Your task to perform on an android device: toggle priority inbox in the gmail app Image 0: 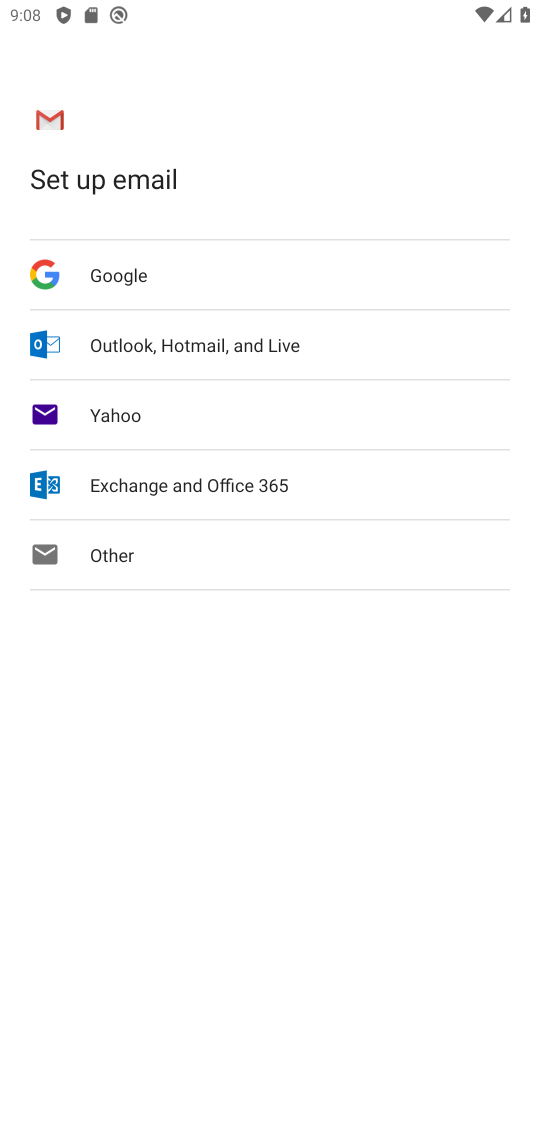
Step 0: press home button
Your task to perform on an android device: toggle priority inbox in the gmail app Image 1: 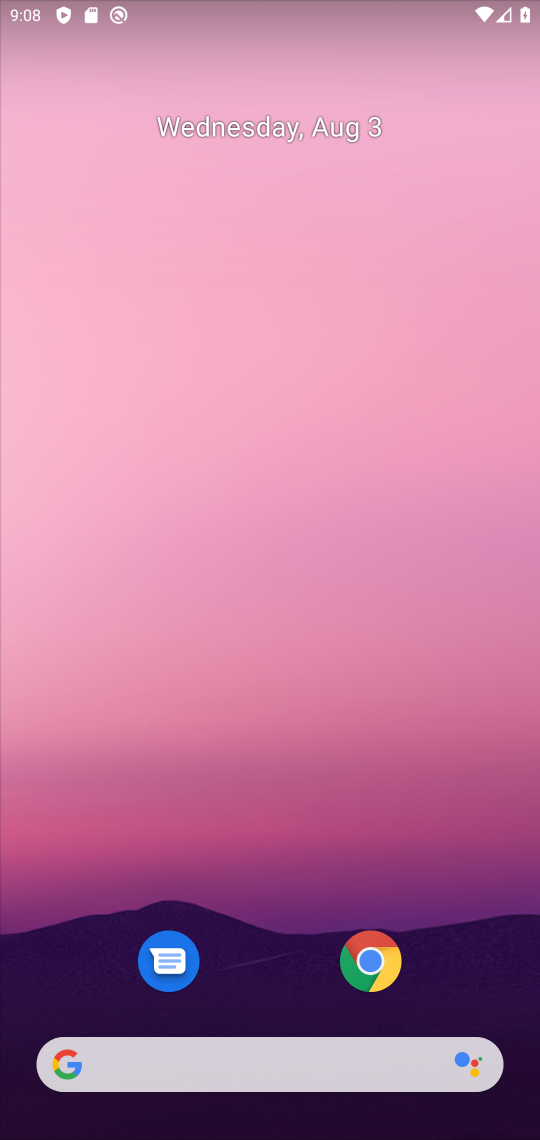
Step 1: drag from (297, 993) to (400, 52)
Your task to perform on an android device: toggle priority inbox in the gmail app Image 2: 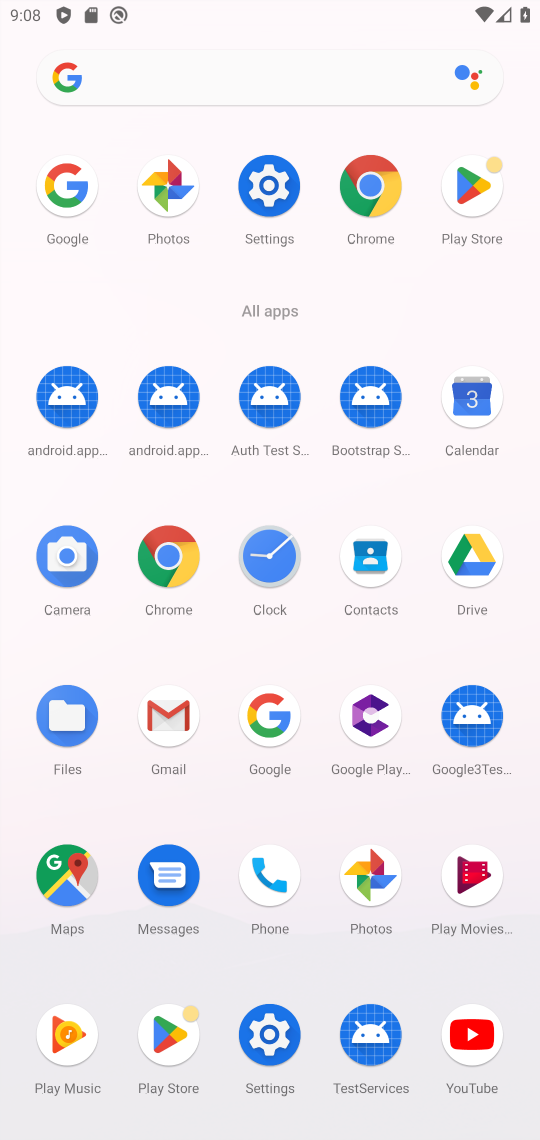
Step 2: click (161, 690)
Your task to perform on an android device: toggle priority inbox in the gmail app Image 3: 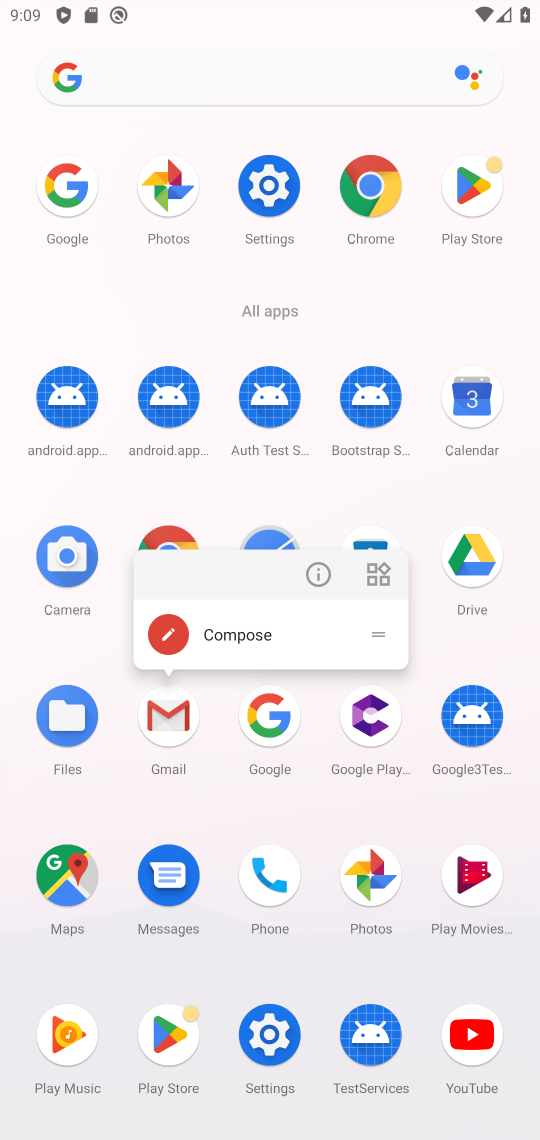
Step 3: click (190, 728)
Your task to perform on an android device: toggle priority inbox in the gmail app Image 4: 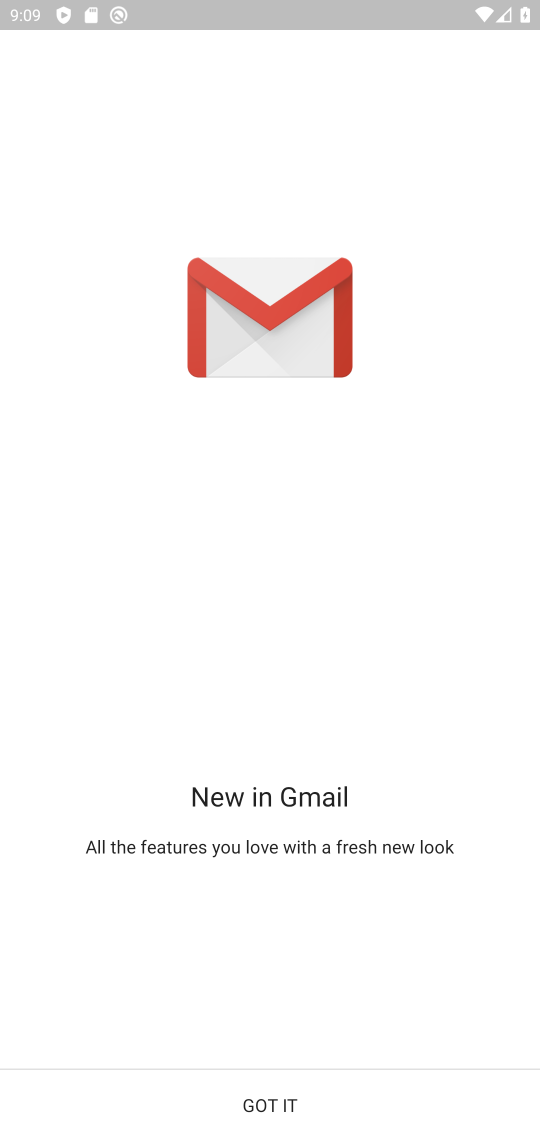
Step 4: click (309, 1113)
Your task to perform on an android device: toggle priority inbox in the gmail app Image 5: 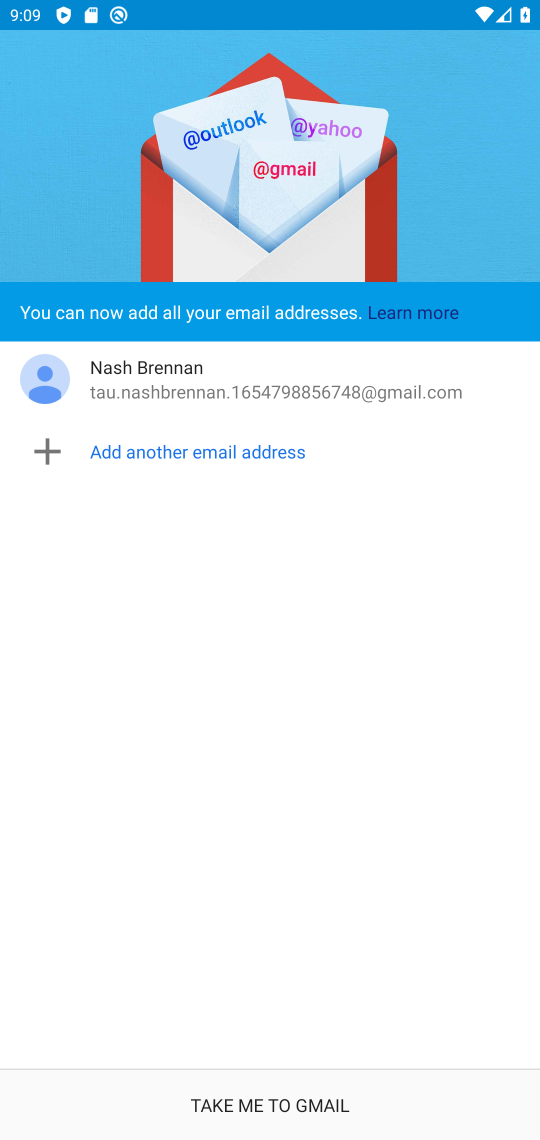
Step 5: click (252, 1082)
Your task to perform on an android device: toggle priority inbox in the gmail app Image 6: 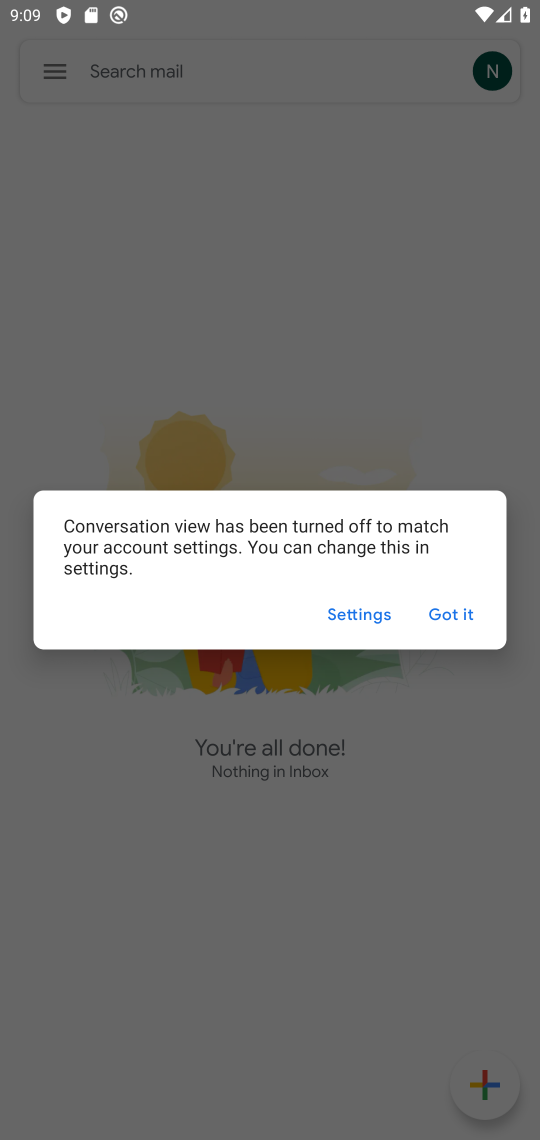
Step 6: click (429, 623)
Your task to perform on an android device: toggle priority inbox in the gmail app Image 7: 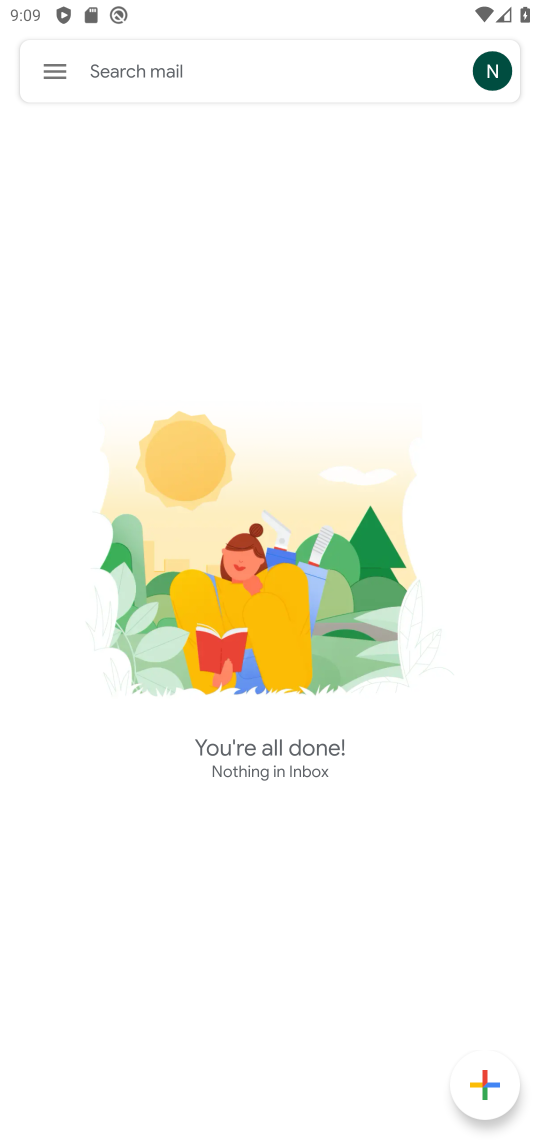
Step 7: click (43, 69)
Your task to perform on an android device: toggle priority inbox in the gmail app Image 8: 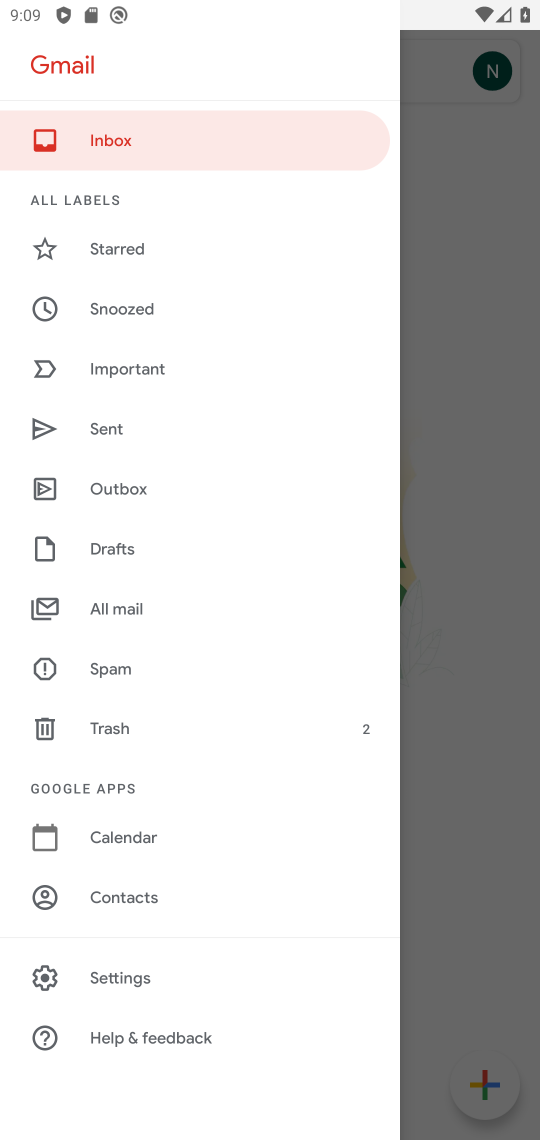
Step 8: click (102, 971)
Your task to perform on an android device: toggle priority inbox in the gmail app Image 9: 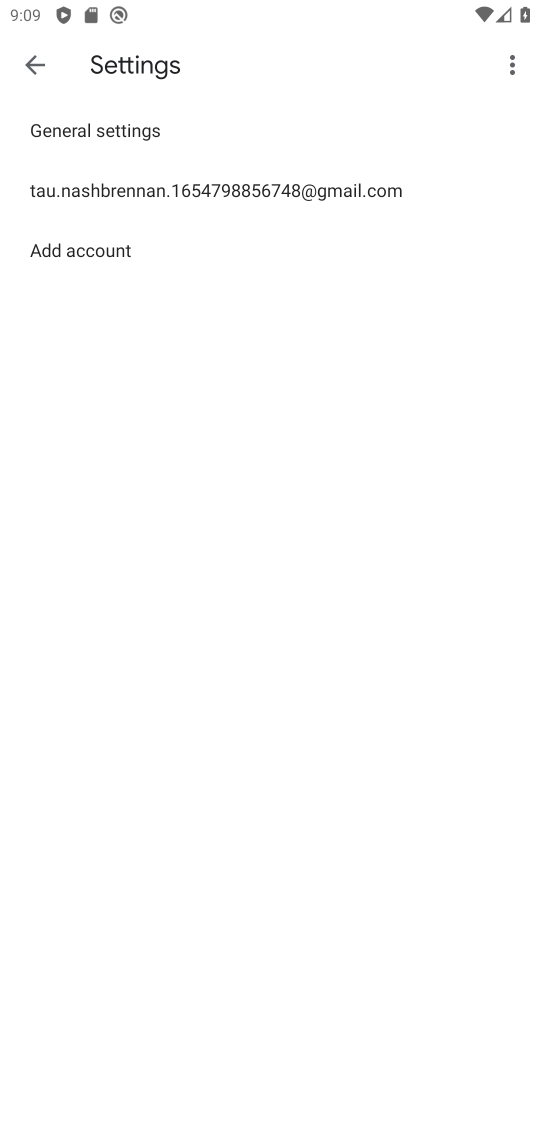
Step 9: click (114, 188)
Your task to perform on an android device: toggle priority inbox in the gmail app Image 10: 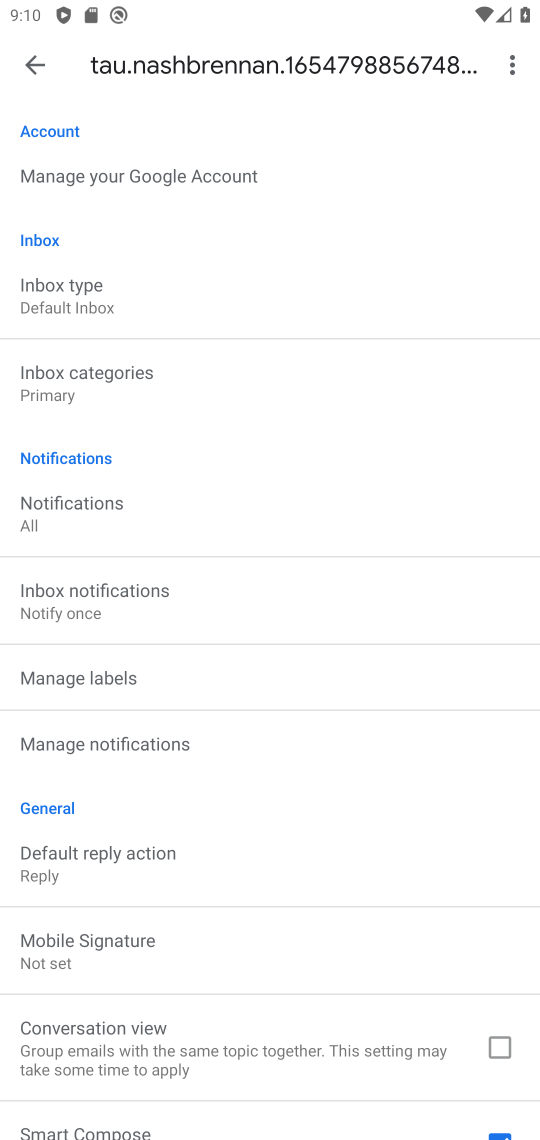
Step 10: click (51, 316)
Your task to perform on an android device: toggle priority inbox in the gmail app Image 11: 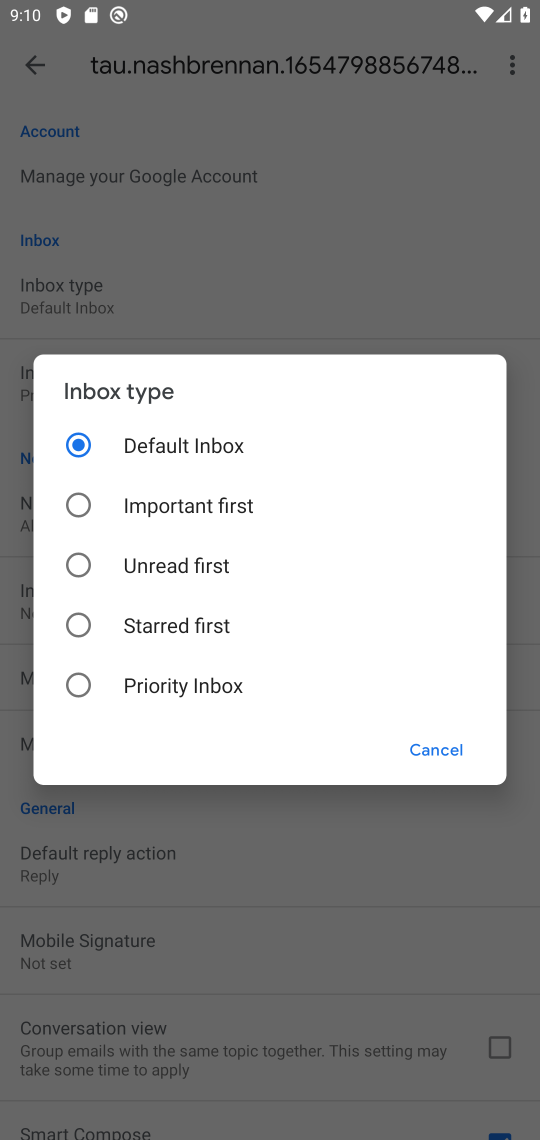
Step 11: click (161, 677)
Your task to perform on an android device: toggle priority inbox in the gmail app Image 12: 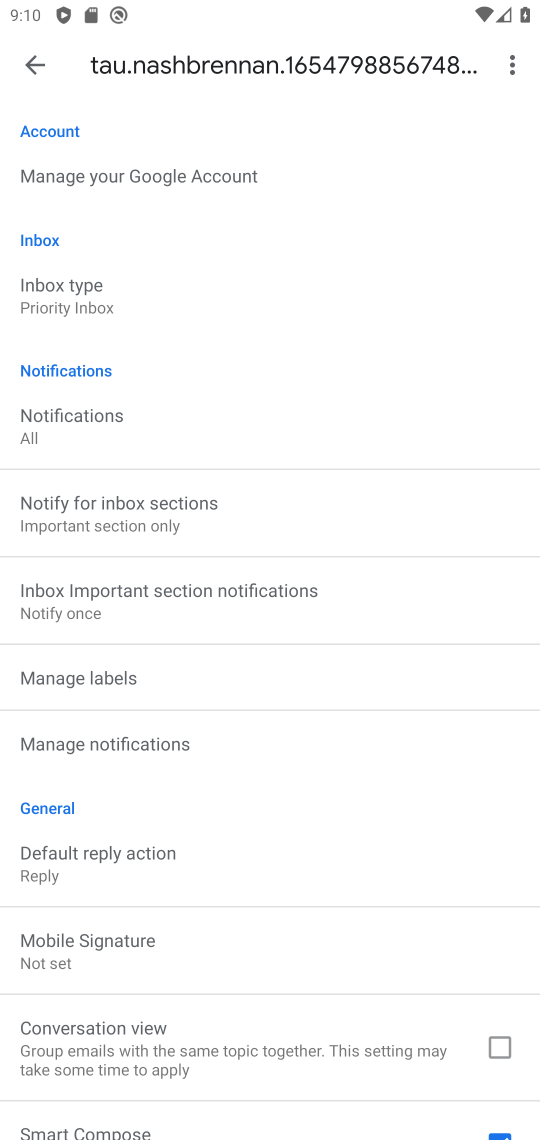
Step 12: task complete